Your task to perform on an android device: open app "Walmart Shopping & Grocery" (install if not already installed) Image 0: 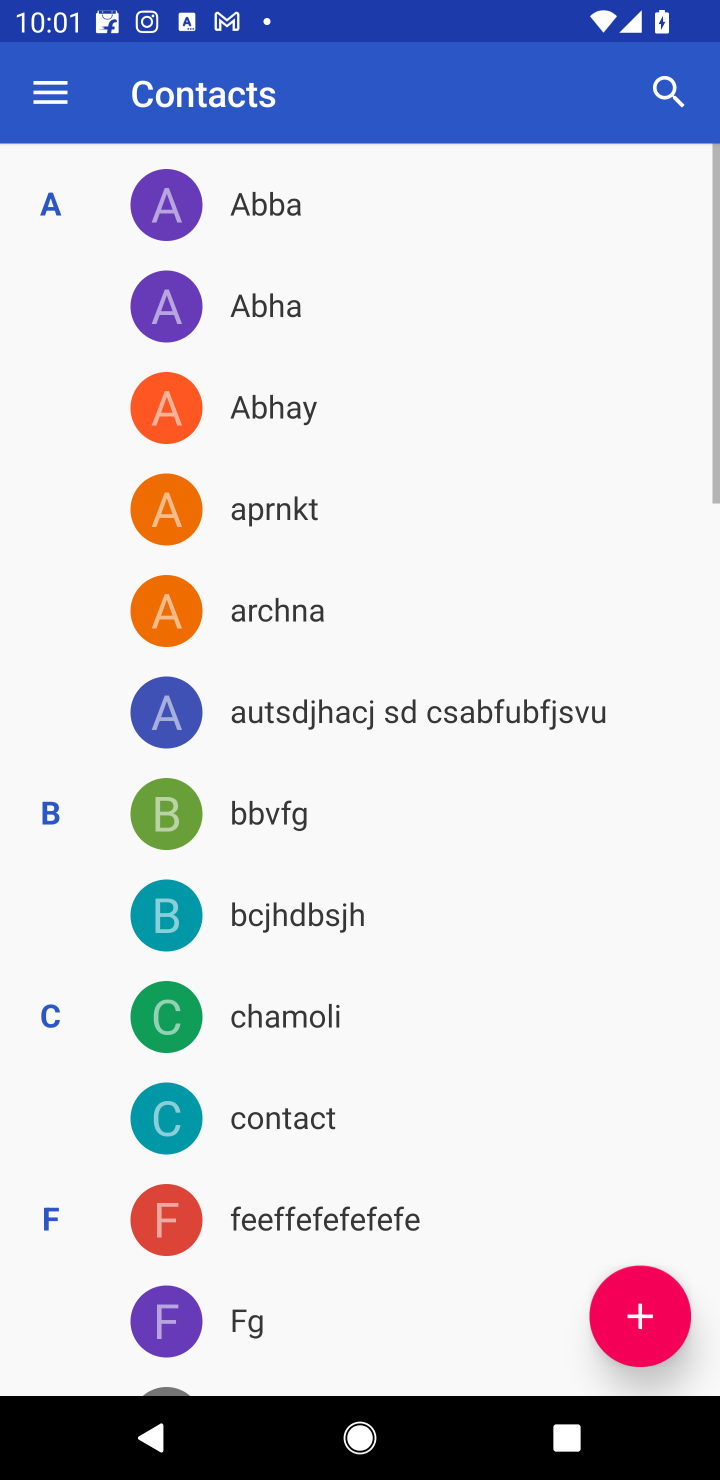
Step 0: press home button
Your task to perform on an android device: open app "Walmart Shopping & Grocery" (install if not already installed) Image 1: 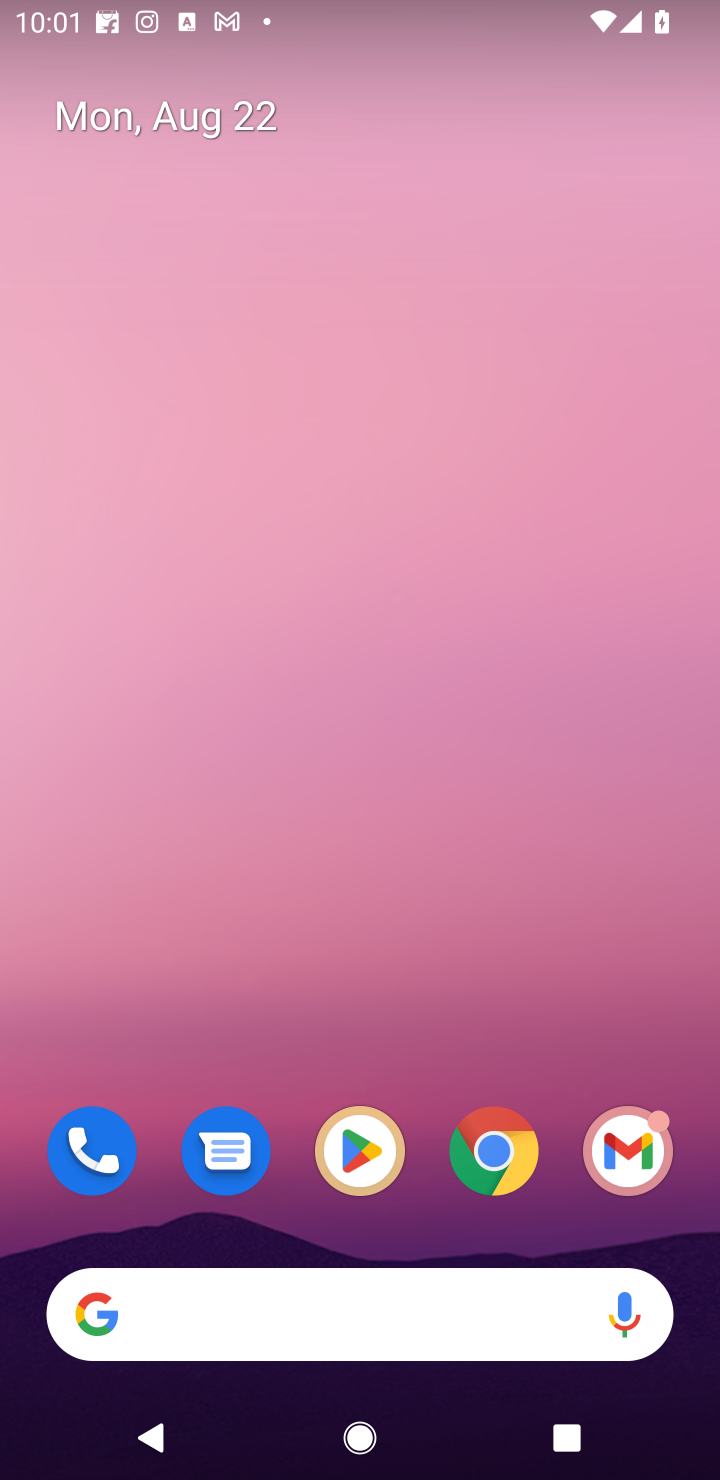
Step 1: click (372, 1152)
Your task to perform on an android device: open app "Walmart Shopping & Grocery" (install if not already installed) Image 2: 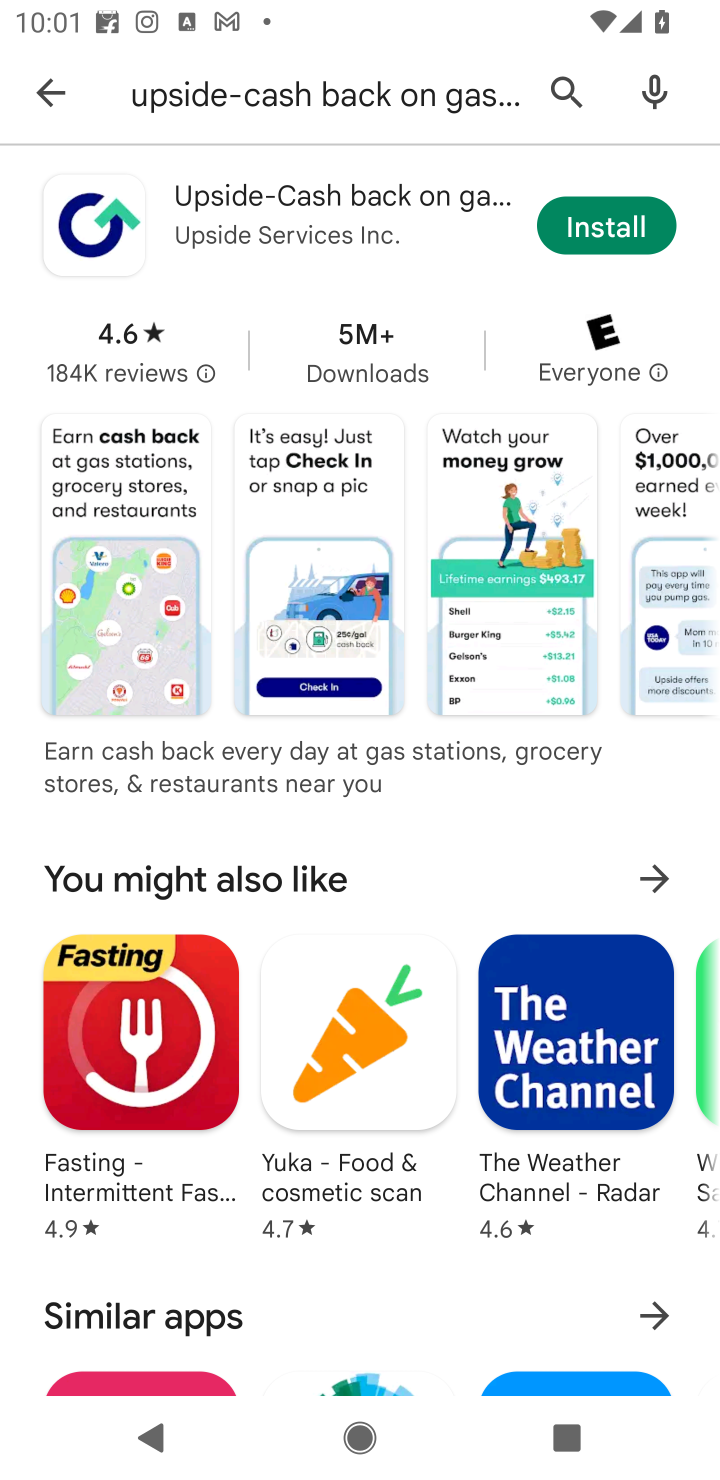
Step 2: click (553, 80)
Your task to perform on an android device: open app "Walmart Shopping & Grocery" (install if not already installed) Image 3: 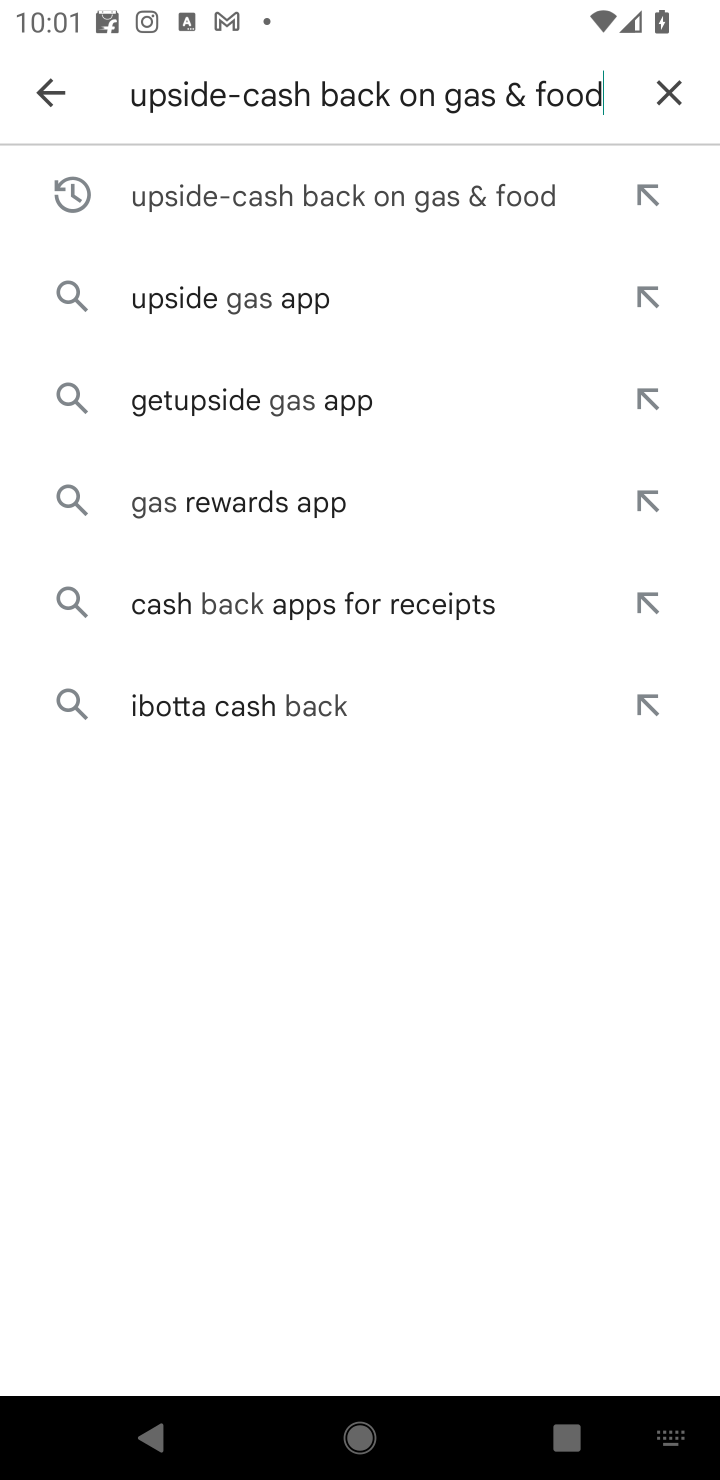
Step 3: click (665, 79)
Your task to perform on an android device: open app "Walmart Shopping & Grocery" (install if not already installed) Image 4: 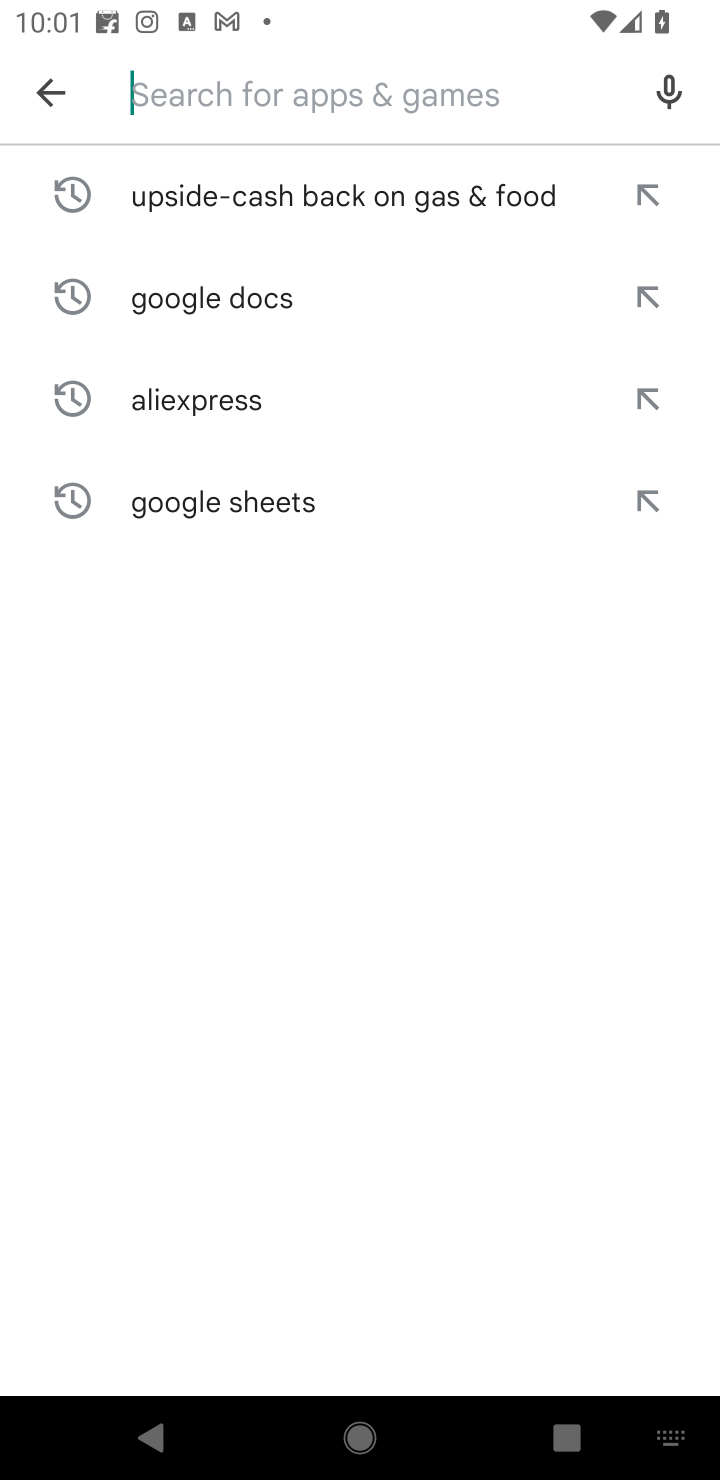
Step 4: type "Walmart Shopping & Grocery"
Your task to perform on an android device: open app "Walmart Shopping & Grocery" (install if not already installed) Image 5: 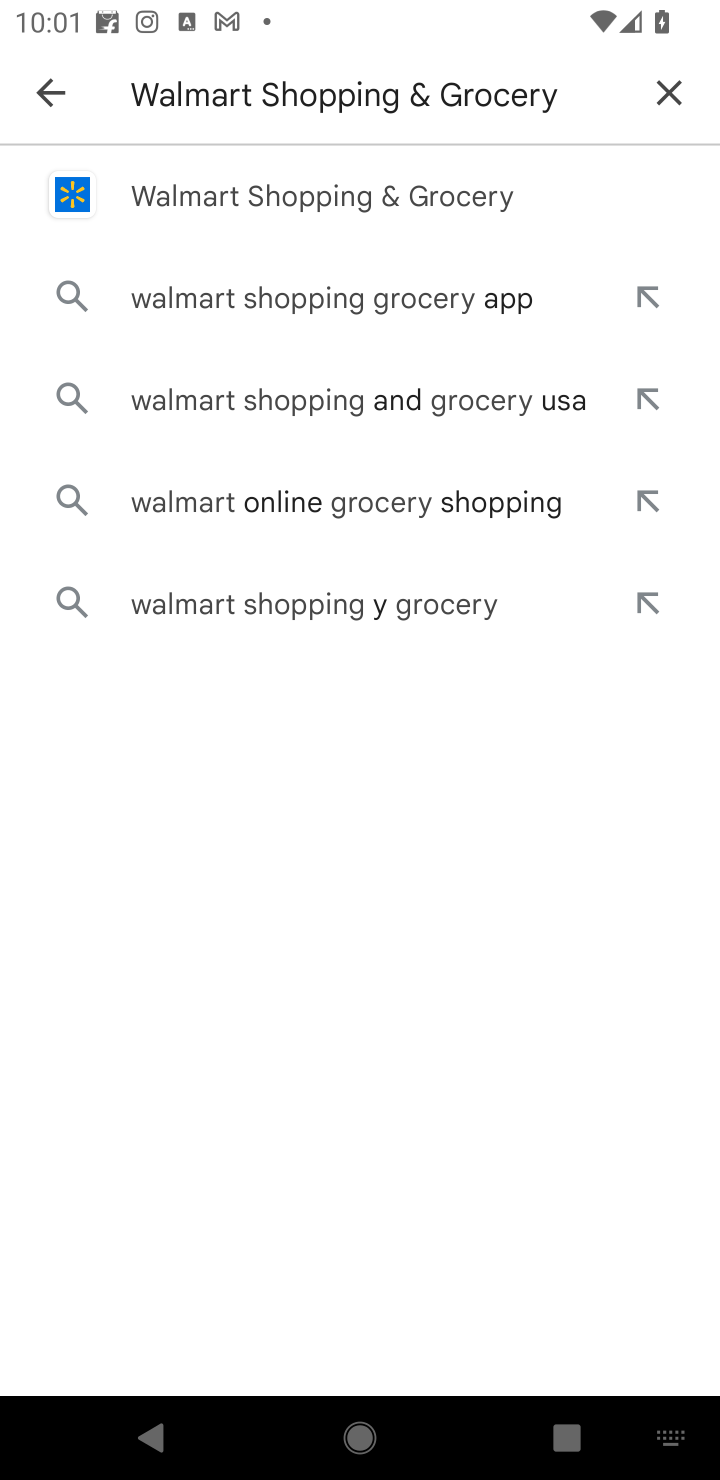
Step 5: click (432, 204)
Your task to perform on an android device: open app "Walmart Shopping & Grocery" (install if not already installed) Image 6: 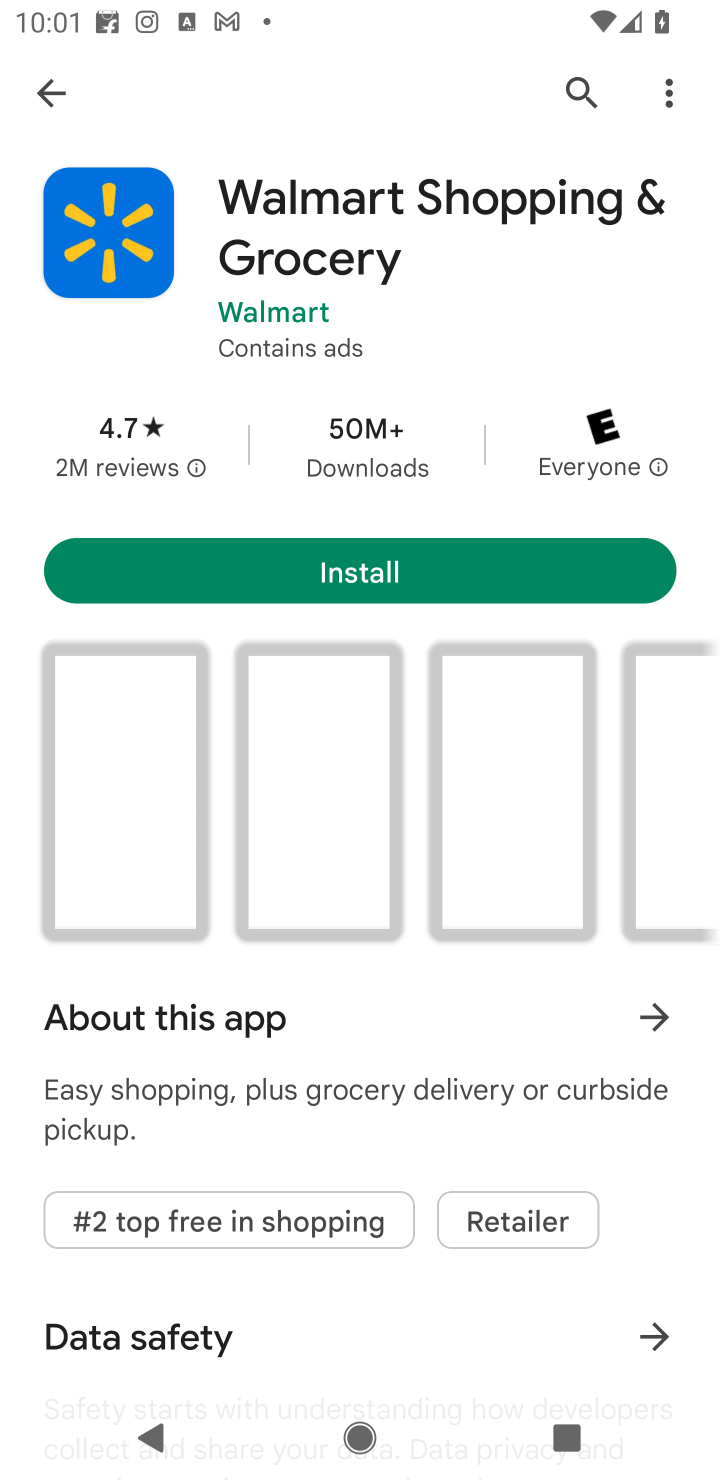
Step 6: click (350, 566)
Your task to perform on an android device: open app "Walmart Shopping & Grocery" (install if not already installed) Image 7: 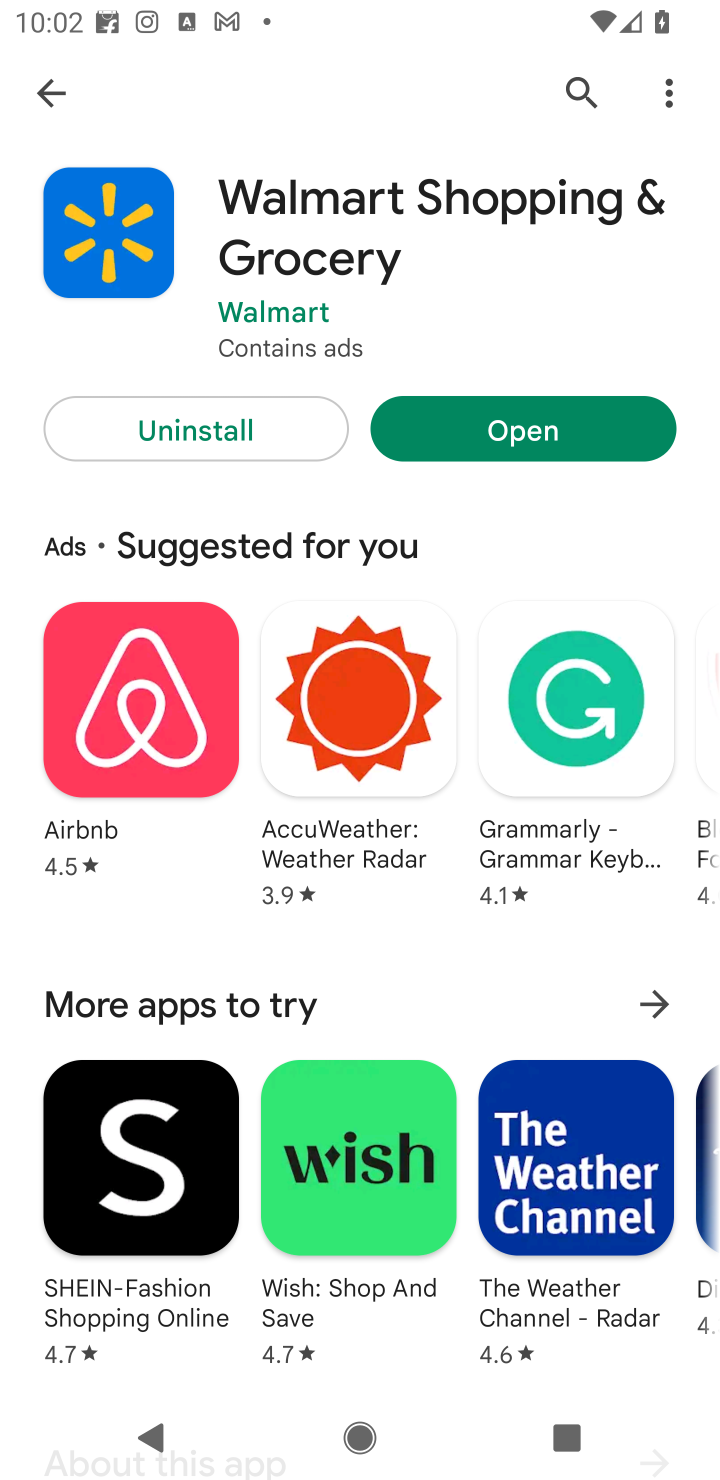
Step 7: click (589, 439)
Your task to perform on an android device: open app "Walmart Shopping & Grocery" (install if not already installed) Image 8: 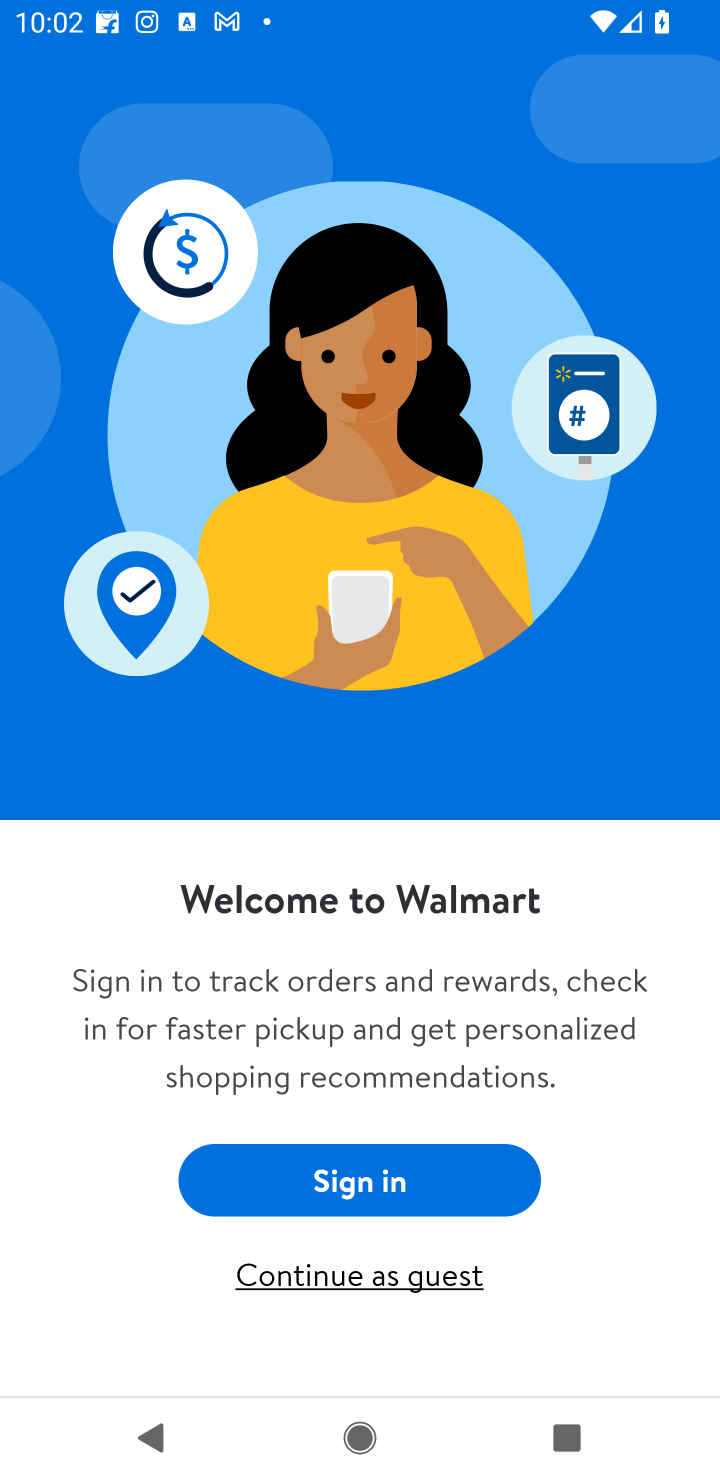
Step 8: task complete